Your task to perform on an android device: Open Google Maps Image 0: 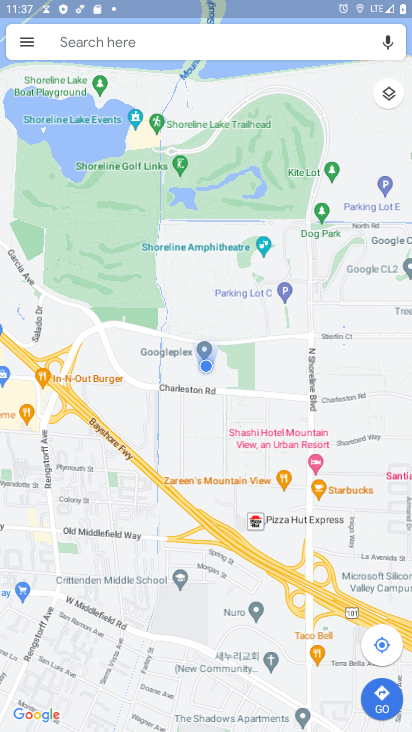
Step 0: task complete